Your task to perform on an android device: turn on the 24-hour format for clock Image 0: 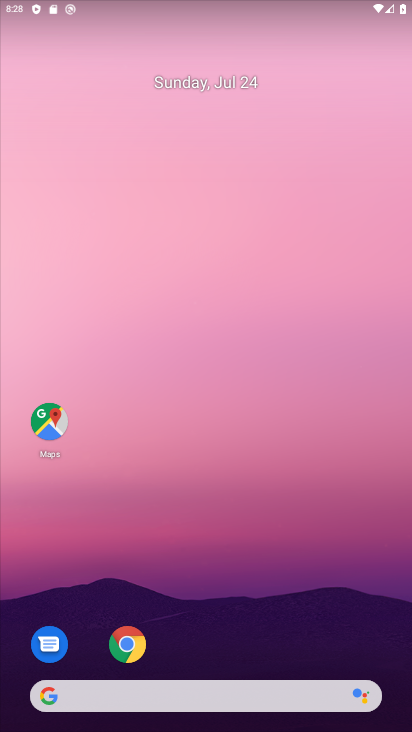
Step 0: drag from (383, 648) to (362, 124)
Your task to perform on an android device: turn on the 24-hour format for clock Image 1: 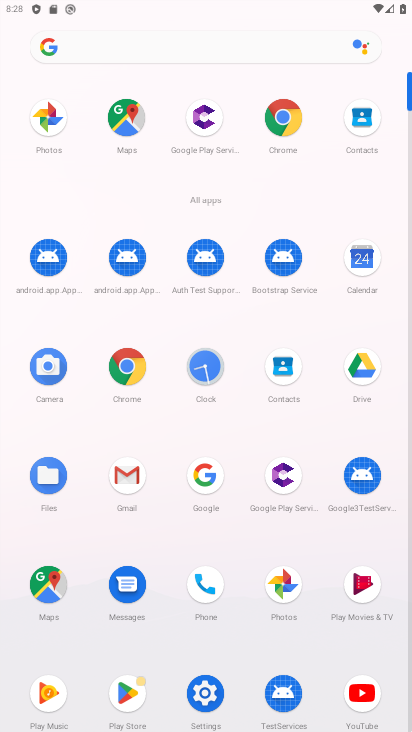
Step 1: click (207, 364)
Your task to perform on an android device: turn on the 24-hour format for clock Image 2: 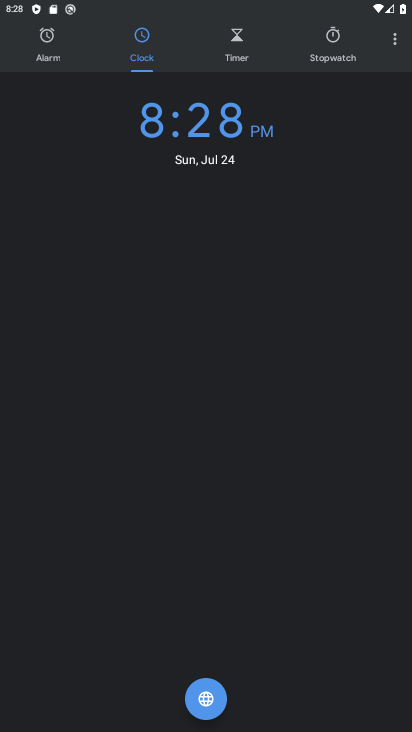
Step 2: click (394, 45)
Your task to perform on an android device: turn on the 24-hour format for clock Image 3: 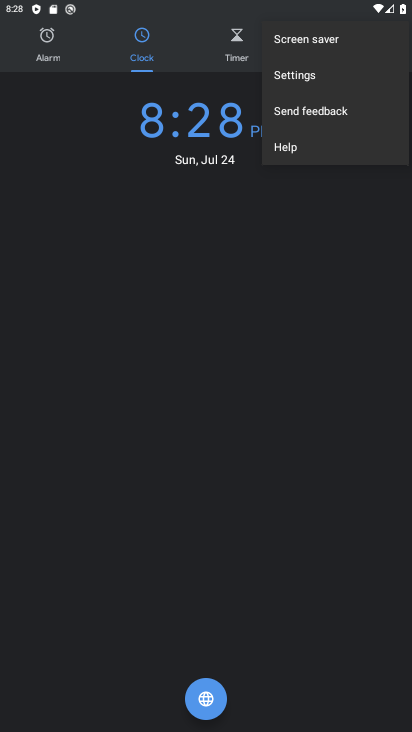
Step 3: click (283, 71)
Your task to perform on an android device: turn on the 24-hour format for clock Image 4: 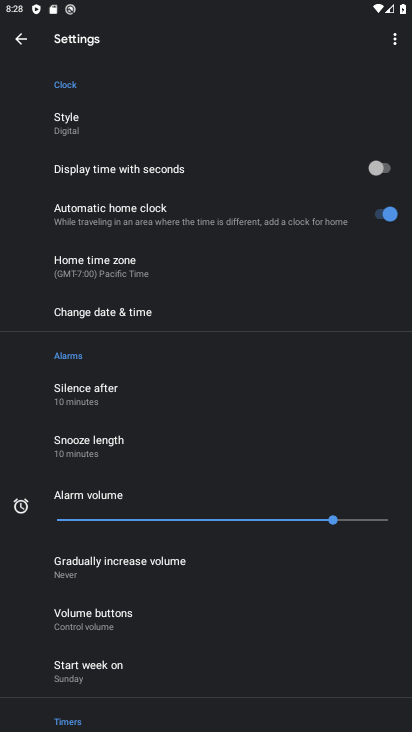
Step 4: click (130, 306)
Your task to perform on an android device: turn on the 24-hour format for clock Image 5: 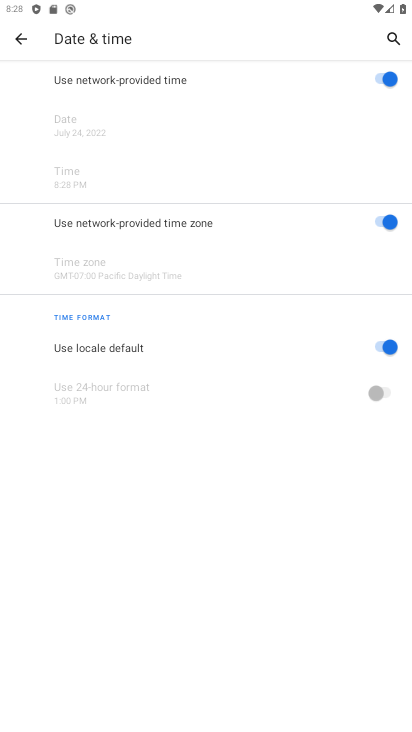
Step 5: click (379, 346)
Your task to perform on an android device: turn on the 24-hour format for clock Image 6: 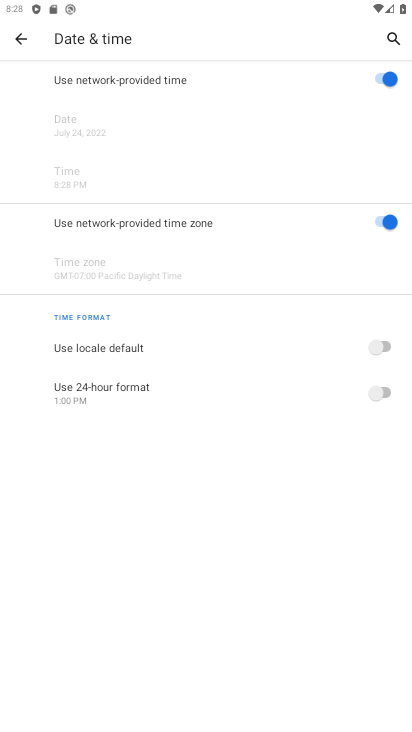
Step 6: click (390, 395)
Your task to perform on an android device: turn on the 24-hour format for clock Image 7: 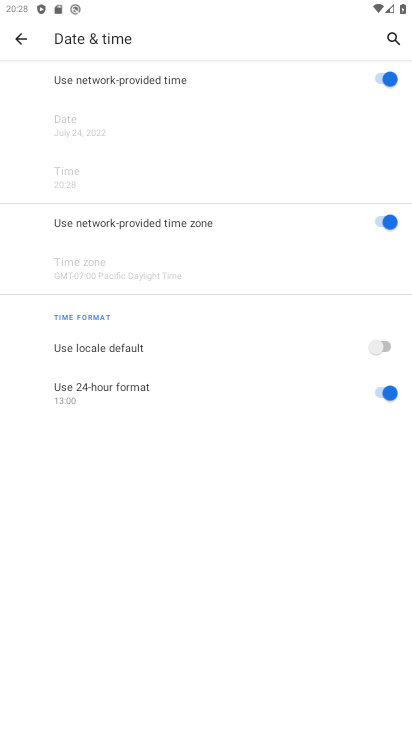
Step 7: task complete